Your task to perform on an android device: delete the emails in spam in the gmail app Image 0: 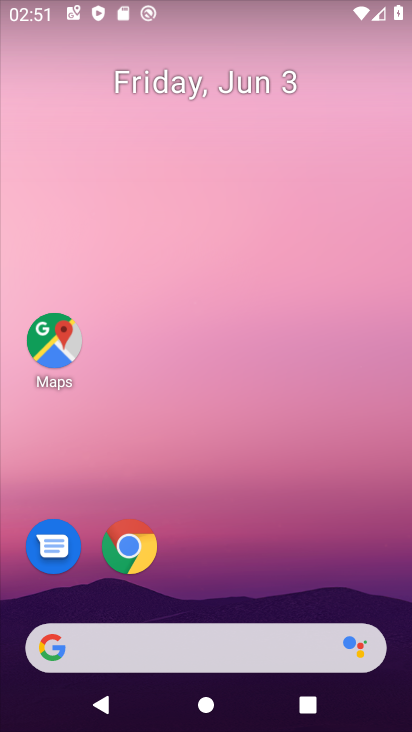
Step 0: drag from (245, 554) to (248, 69)
Your task to perform on an android device: delete the emails in spam in the gmail app Image 1: 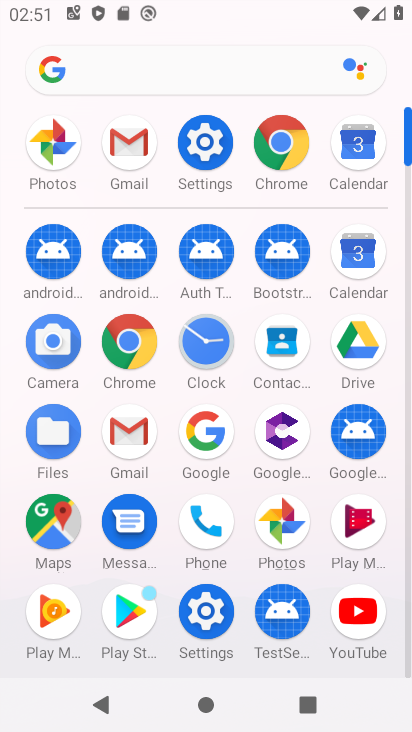
Step 1: drag from (254, 378) to (285, 177)
Your task to perform on an android device: delete the emails in spam in the gmail app Image 2: 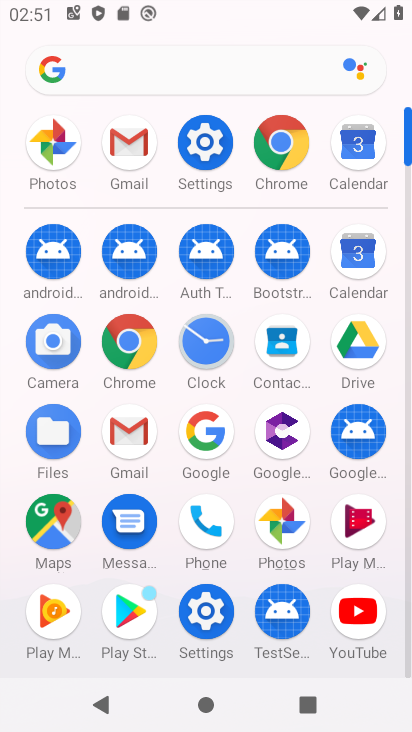
Step 2: click (143, 434)
Your task to perform on an android device: delete the emails in spam in the gmail app Image 3: 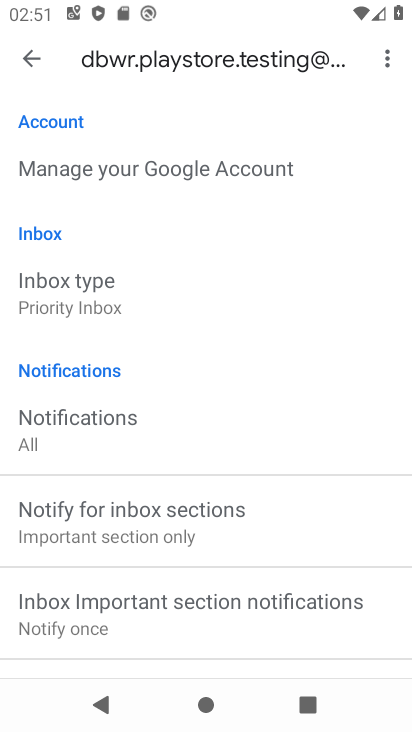
Step 3: click (29, 91)
Your task to perform on an android device: delete the emails in spam in the gmail app Image 4: 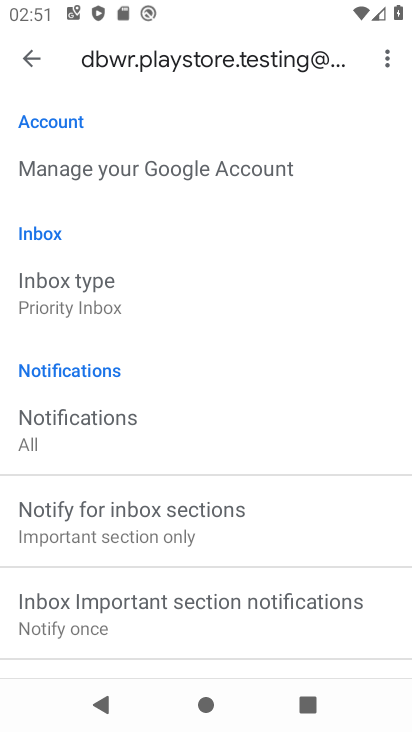
Step 4: click (22, 76)
Your task to perform on an android device: delete the emails in spam in the gmail app Image 5: 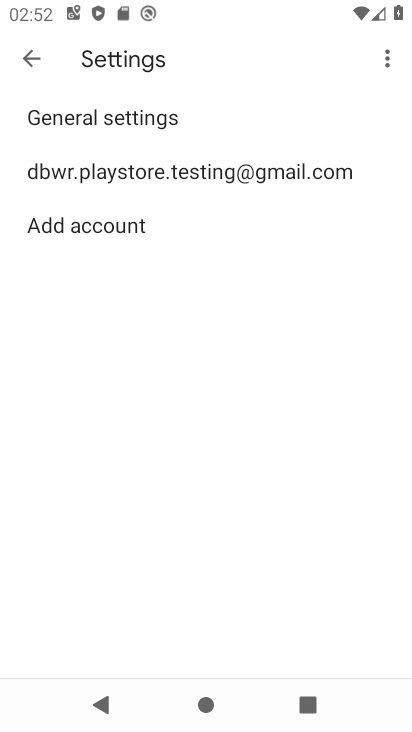
Step 5: click (38, 63)
Your task to perform on an android device: delete the emails in spam in the gmail app Image 6: 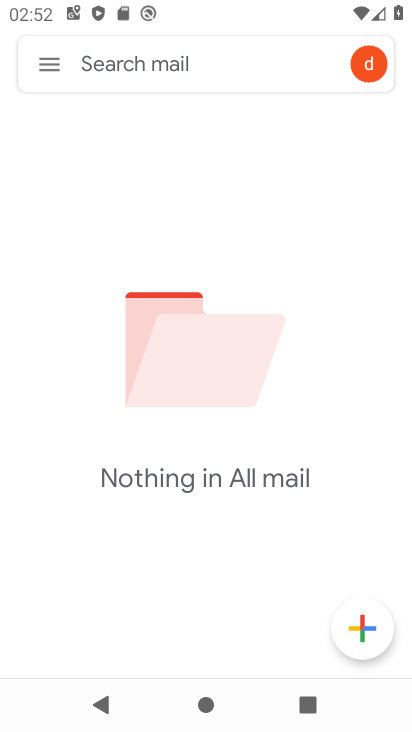
Step 6: click (37, 67)
Your task to perform on an android device: delete the emails in spam in the gmail app Image 7: 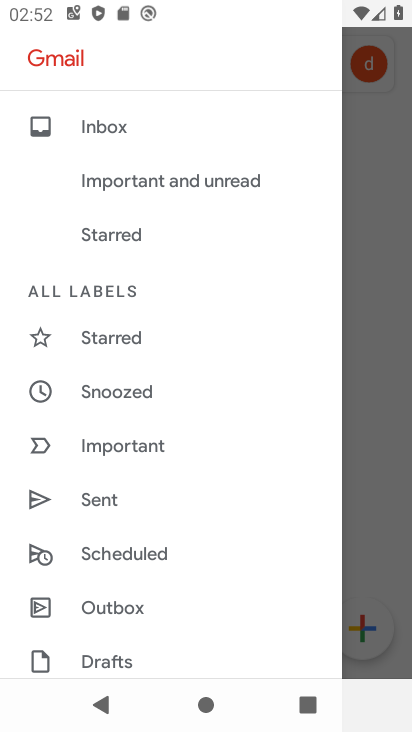
Step 7: drag from (159, 624) to (159, 312)
Your task to perform on an android device: delete the emails in spam in the gmail app Image 8: 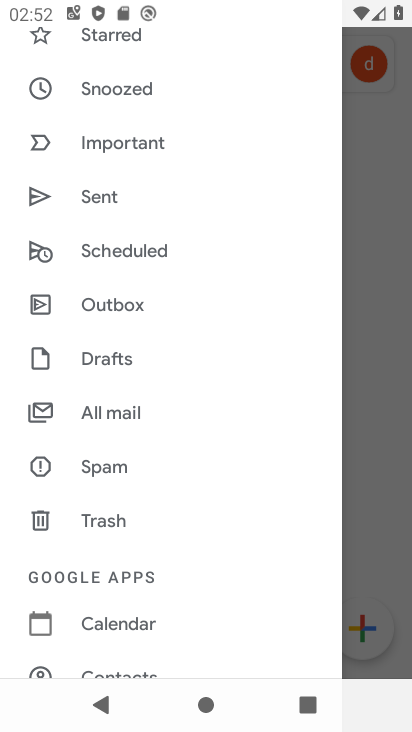
Step 8: click (125, 455)
Your task to perform on an android device: delete the emails in spam in the gmail app Image 9: 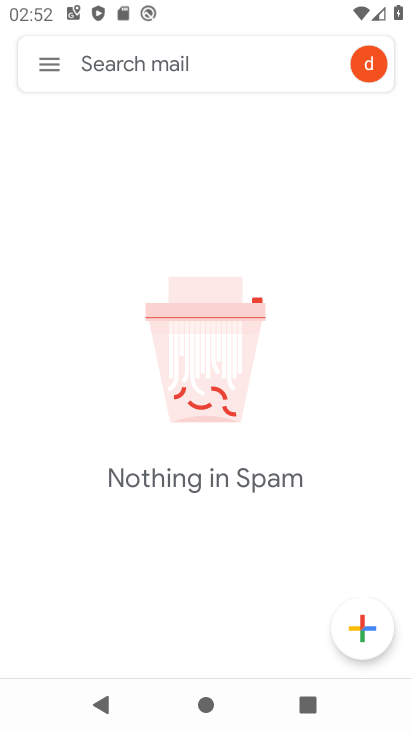
Step 9: task complete